Your task to perform on an android device: find which apps use the phone's location Image 0: 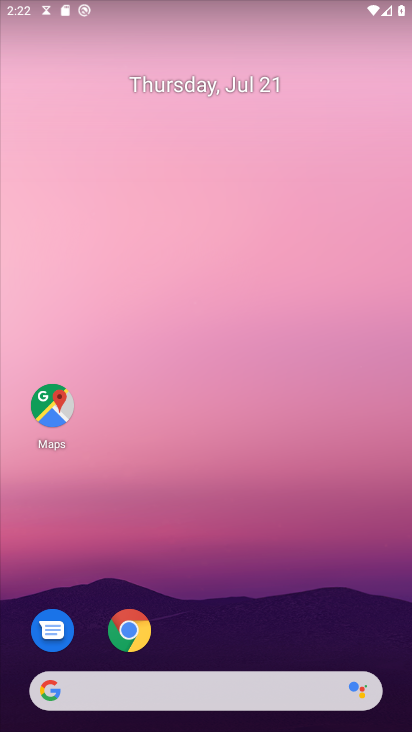
Step 0: click (225, 639)
Your task to perform on an android device: find which apps use the phone's location Image 1: 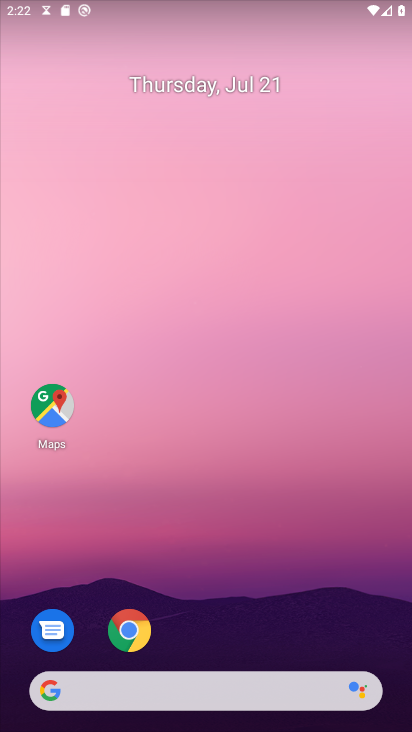
Step 1: drag from (210, 453) to (213, 96)
Your task to perform on an android device: find which apps use the phone's location Image 2: 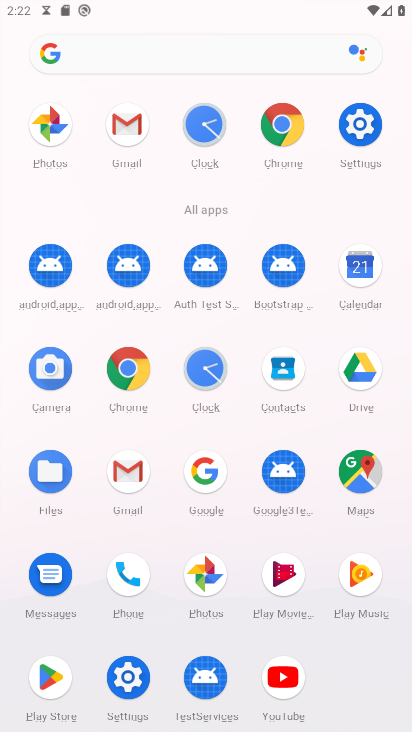
Step 2: click (351, 151)
Your task to perform on an android device: find which apps use the phone's location Image 3: 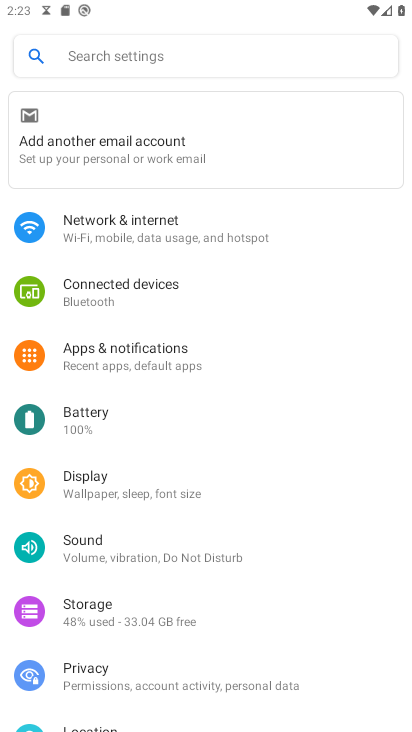
Step 3: click (88, 727)
Your task to perform on an android device: find which apps use the phone's location Image 4: 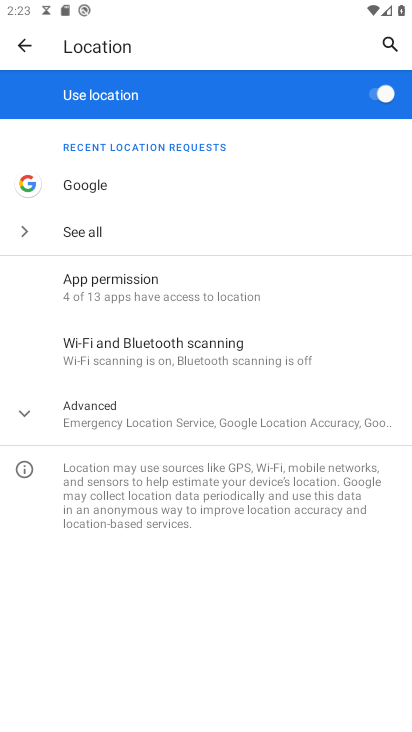
Step 4: click (115, 293)
Your task to perform on an android device: find which apps use the phone's location Image 5: 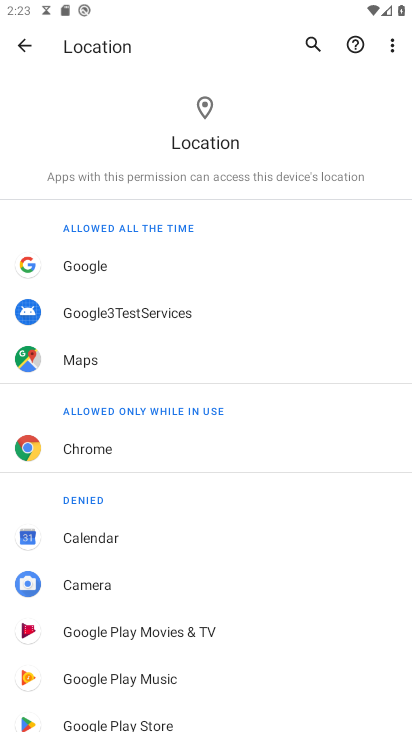
Step 5: task complete